Your task to perform on an android device: Go to wifi settings Image 0: 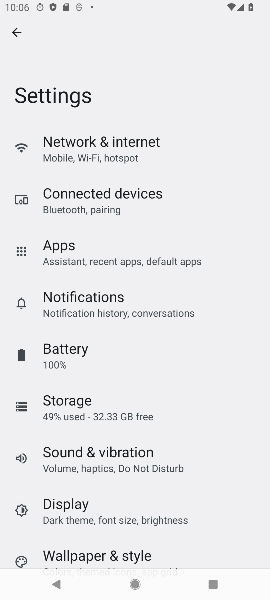
Step 0: drag from (128, 2) to (118, 453)
Your task to perform on an android device: Go to wifi settings Image 1: 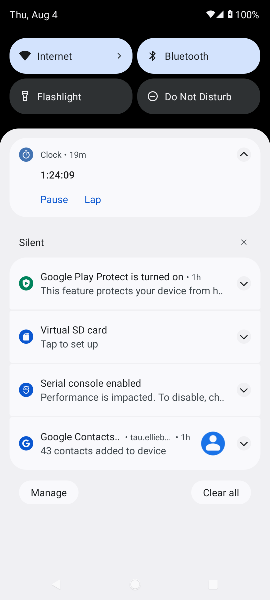
Step 1: drag from (140, 116) to (95, 552)
Your task to perform on an android device: Go to wifi settings Image 2: 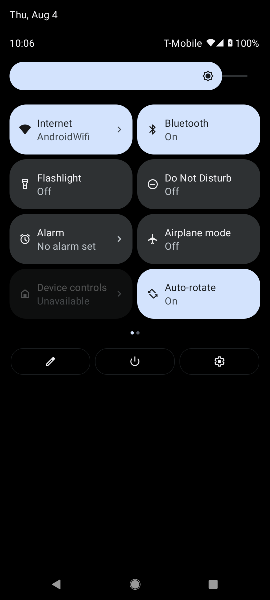
Step 2: click (54, 120)
Your task to perform on an android device: Go to wifi settings Image 3: 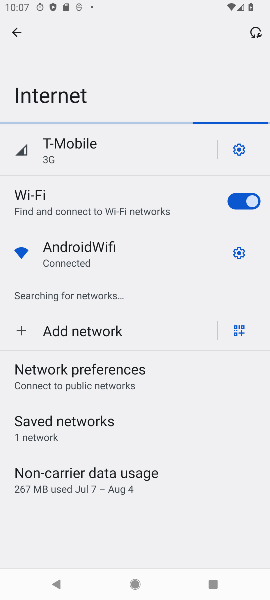
Step 3: task complete